Your task to perform on an android device: Open accessibility settings Image 0: 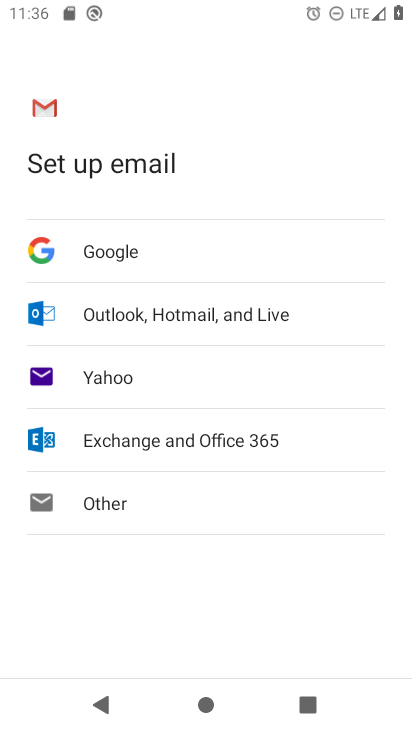
Step 0: press home button
Your task to perform on an android device: Open accessibility settings Image 1: 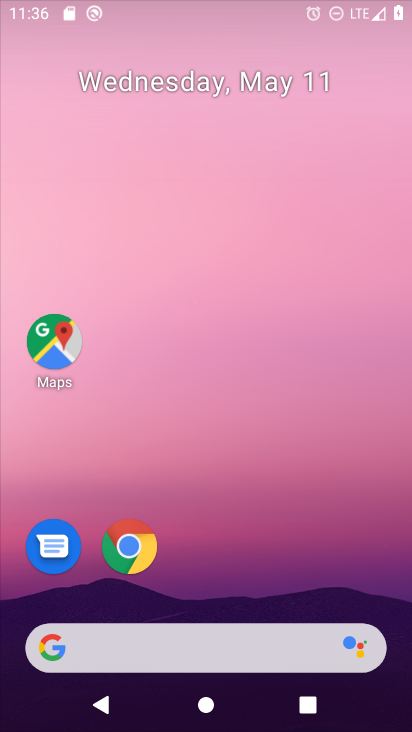
Step 1: drag from (400, 659) to (268, 6)
Your task to perform on an android device: Open accessibility settings Image 2: 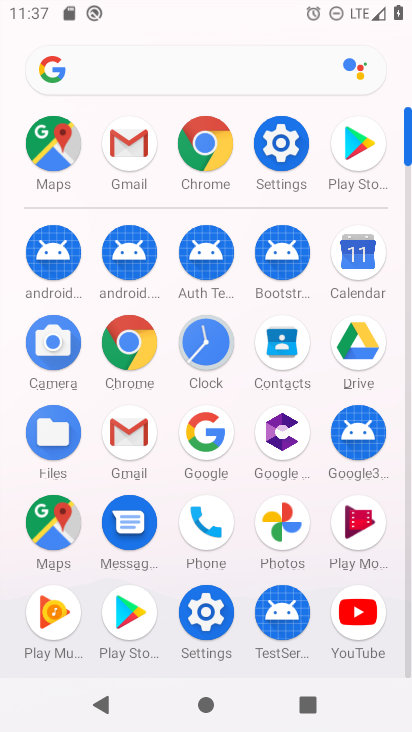
Step 2: click (204, 618)
Your task to perform on an android device: Open accessibility settings Image 3: 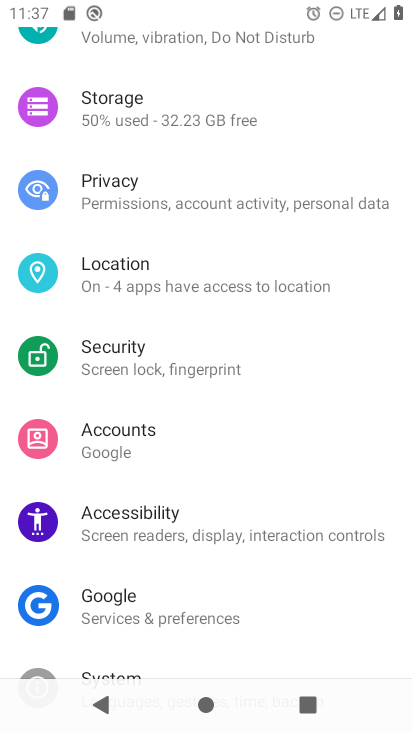
Step 3: click (161, 539)
Your task to perform on an android device: Open accessibility settings Image 4: 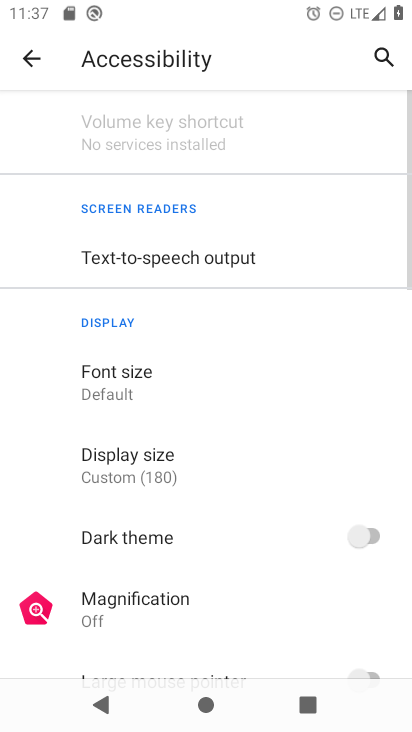
Step 4: task complete